Your task to perform on an android device: clear history in the chrome app Image 0: 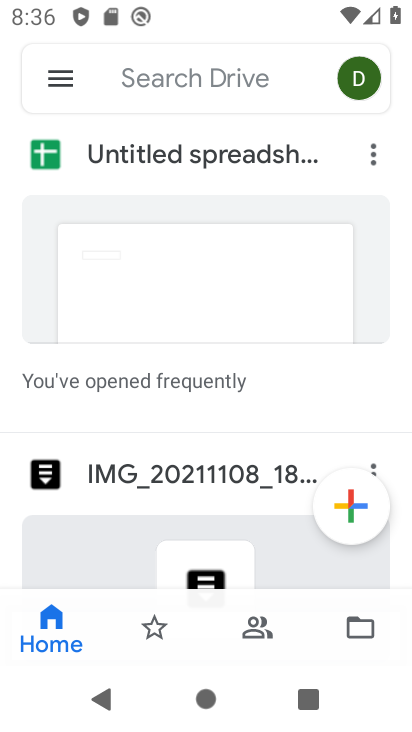
Step 0: press home button
Your task to perform on an android device: clear history in the chrome app Image 1: 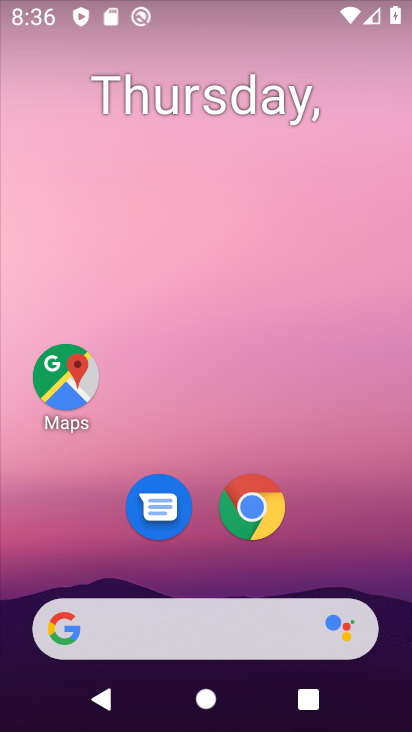
Step 1: drag from (222, 581) to (301, 69)
Your task to perform on an android device: clear history in the chrome app Image 2: 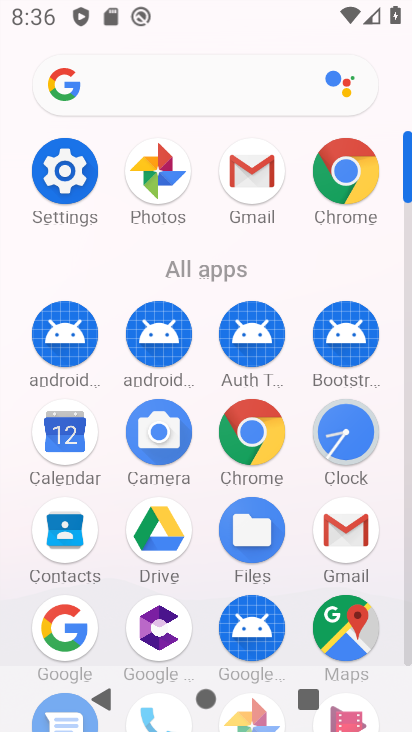
Step 2: click (323, 197)
Your task to perform on an android device: clear history in the chrome app Image 3: 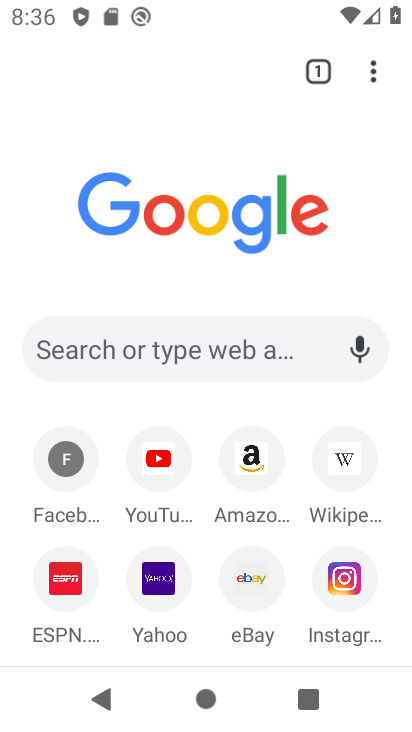
Step 3: click (375, 78)
Your task to perform on an android device: clear history in the chrome app Image 4: 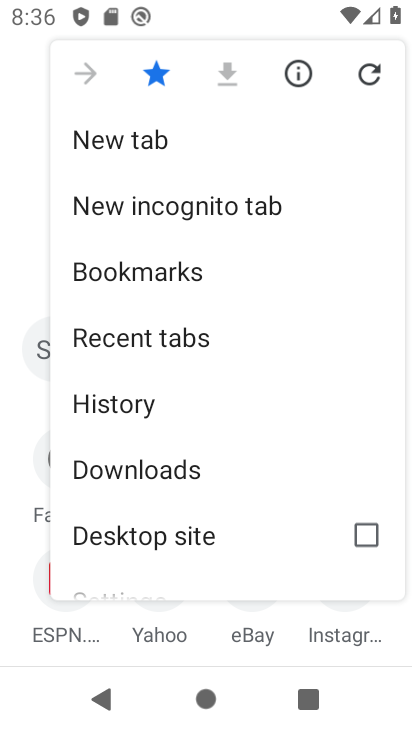
Step 4: click (130, 405)
Your task to perform on an android device: clear history in the chrome app Image 5: 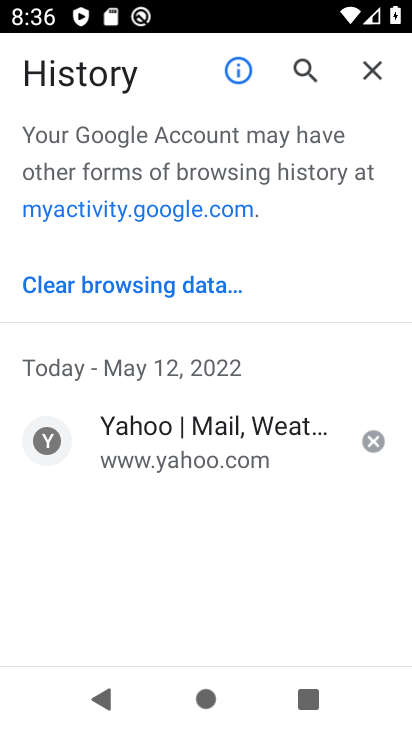
Step 5: click (185, 272)
Your task to perform on an android device: clear history in the chrome app Image 6: 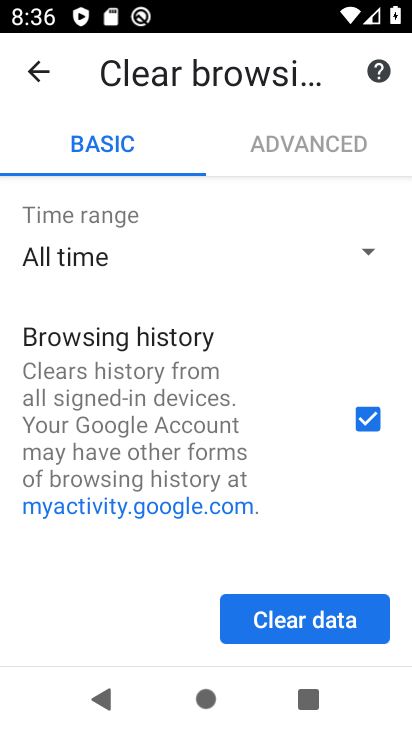
Step 6: click (310, 624)
Your task to perform on an android device: clear history in the chrome app Image 7: 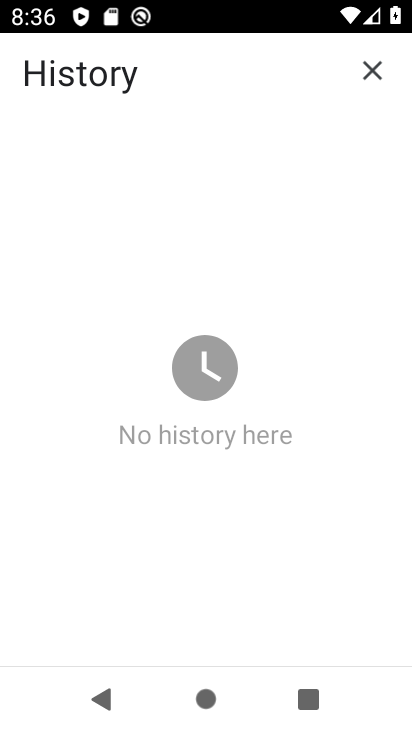
Step 7: task complete